Your task to perform on an android device: Open notification settings Image 0: 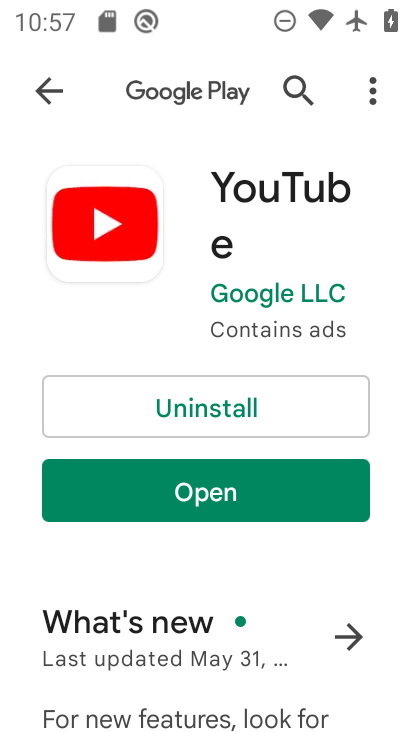
Step 0: press home button
Your task to perform on an android device: Open notification settings Image 1: 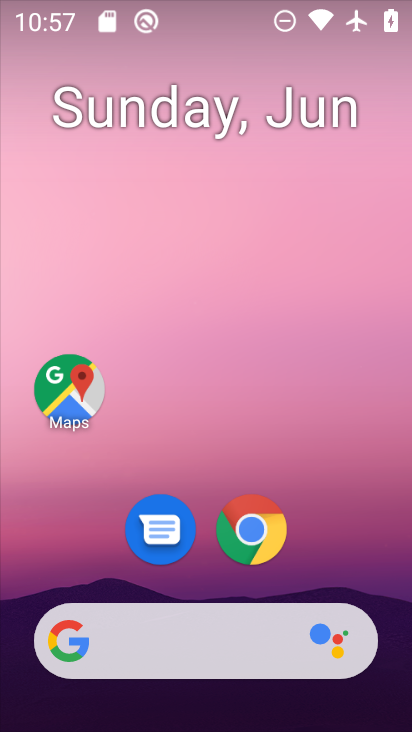
Step 1: drag from (395, 623) to (355, 62)
Your task to perform on an android device: Open notification settings Image 2: 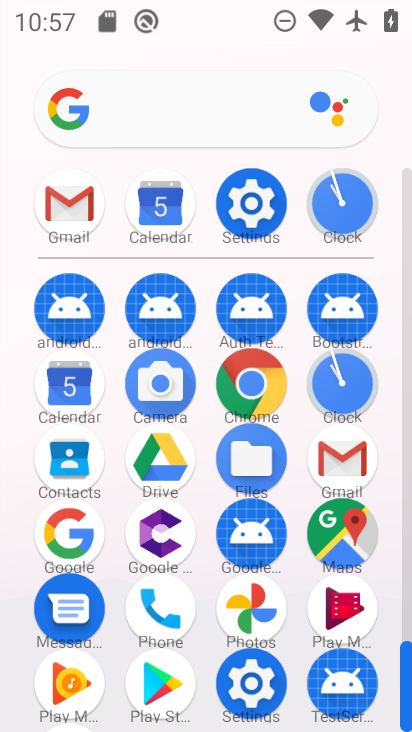
Step 2: click (251, 686)
Your task to perform on an android device: Open notification settings Image 3: 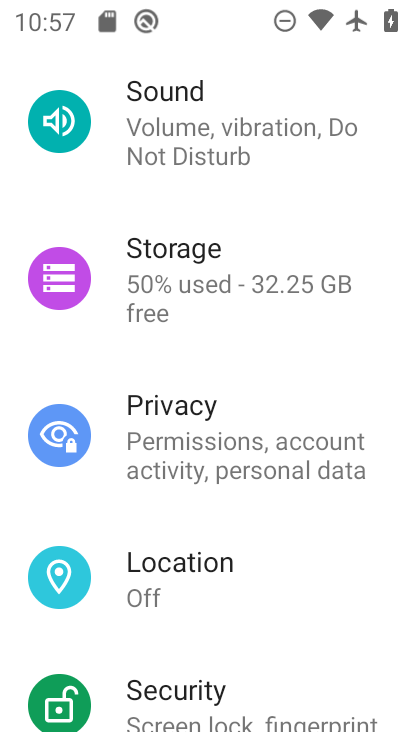
Step 3: drag from (347, 119) to (378, 485)
Your task to perform on an android device: Open notification settings Image 4: 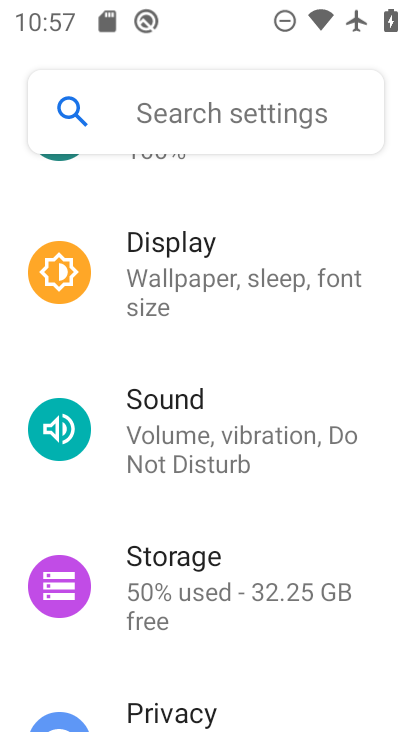
Step 4: drag from (359, 218) to (340, 557)
Your task to perform on an android device: Open notification settings Image 5: 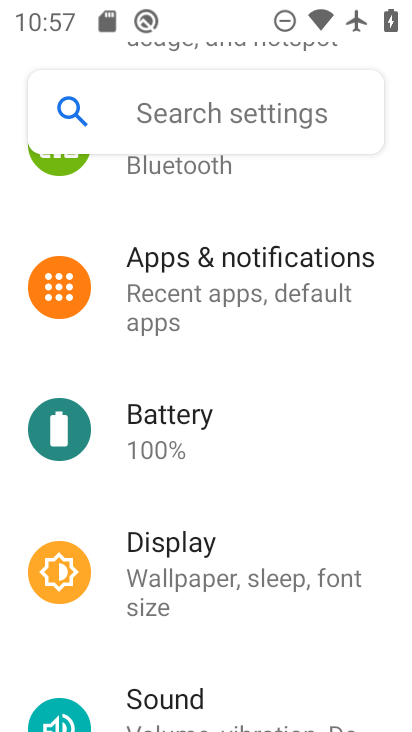
Step 5: click (173, 271)
Your task to perform on an android device: Open notification settings Image 6: 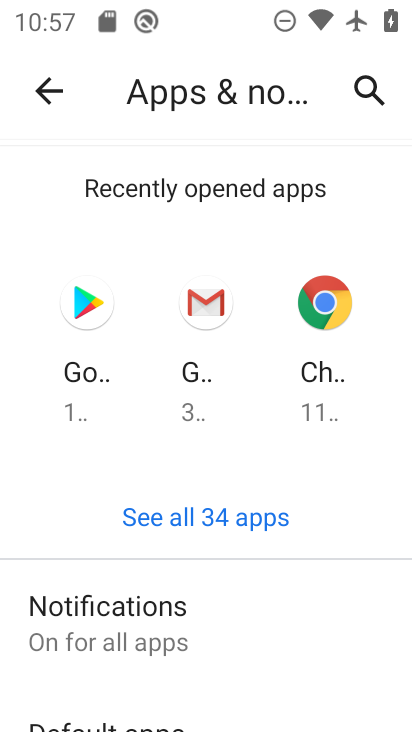
Step 6: drag from (244, 629) to (240, 242)
Your task to perform on an android device: Open notification settings Image 7: 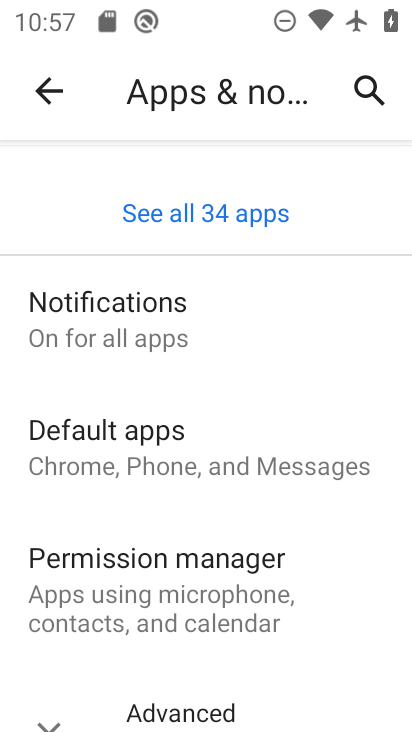
Step 7: click (111, 321)
Your task to perform on an android device: Open notification settings Image 8: 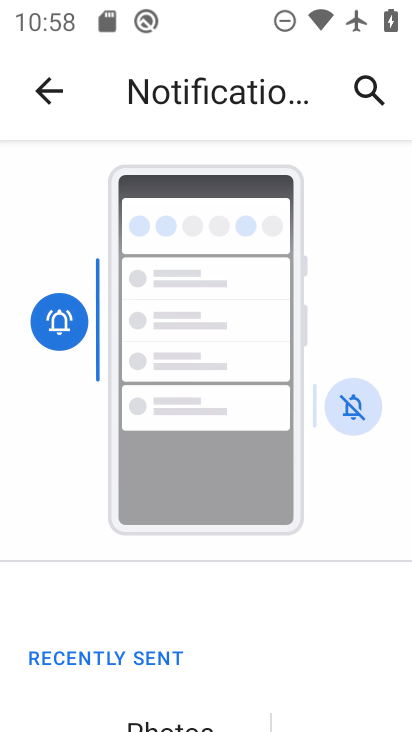
Step 8: drag from (272, 693) to (226, 179)
Your task to perform on an android device: Open notification settings Image 9: 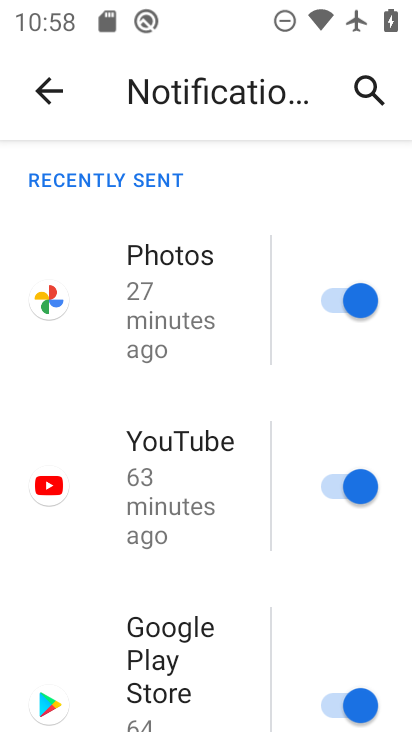
Step 9: drag from (275, 671) to (215, 138)
Your task to perform on an android device: Open notification settings Image 10: 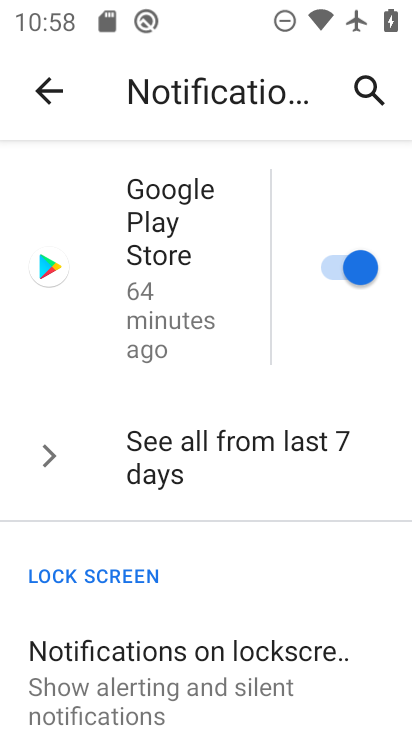
Step 10: drag from (234, 626) to (239, 192)
Your task to perform on an android device: Open notification settings Image 11: 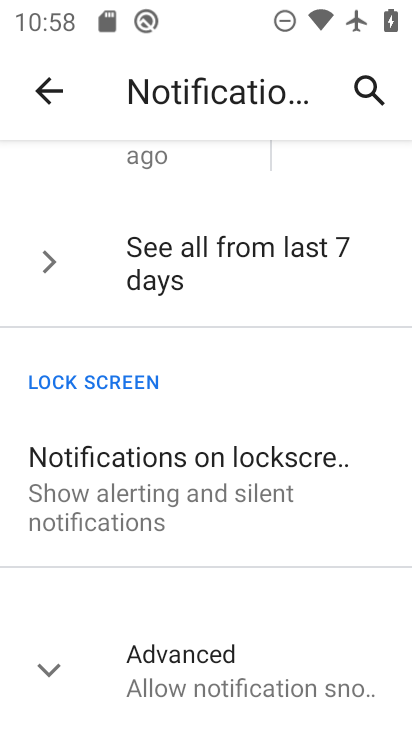
Step 11: click (37, 679)
Your task to perform on an android device: Open notification settings Image 12: 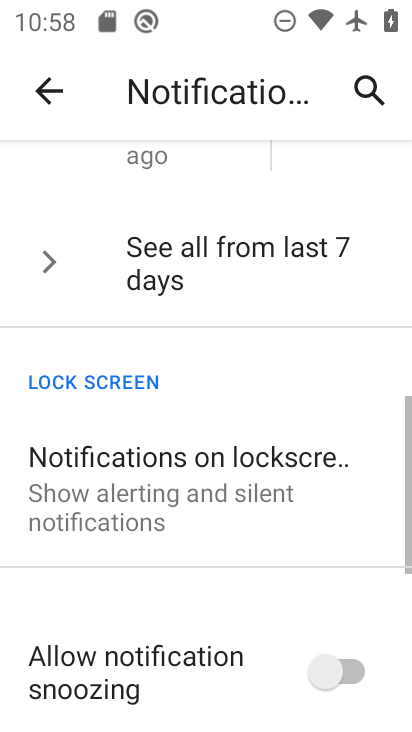
Step 12: task complete